Your task to perform on an android device: Clear all items from cart on costco.com. Search for "jbl flip 4" on costco.com, select the first entry, add it to the cart, then select checkout. Image 0: 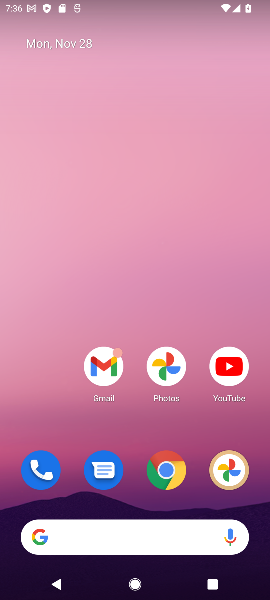
Step 0: click (162, 470)
Your task to perform on an android device: Clear all items from cart on costco.com. Search for "jbl flip 4" on costco.com, select the first entry, add it to the cart, then select checkout. Image 1: 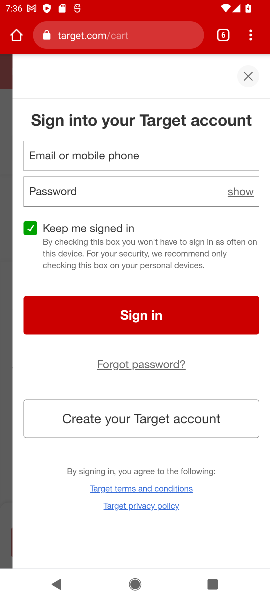
Step 1: click (73, 32)
Your task to perform on an android device: Clear all items from cart on costco.com. Search for "jbl flip 4" on costco.com, select the first entry, add it to the cart, then select checkout. Image 2: 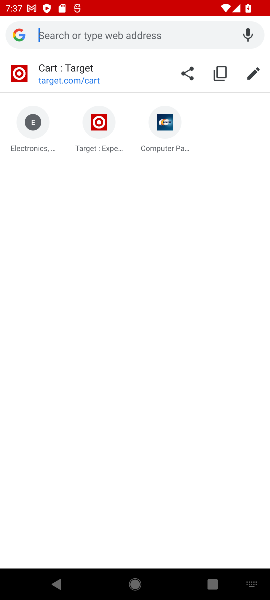
Step 2: type "costco.com,"
Your task to perform on an android device: Clear all items from cart on costco.com. Search for "jbl flip 4" on costco.com, select the first entry, add it to the cart, then select checkout. Image 3: 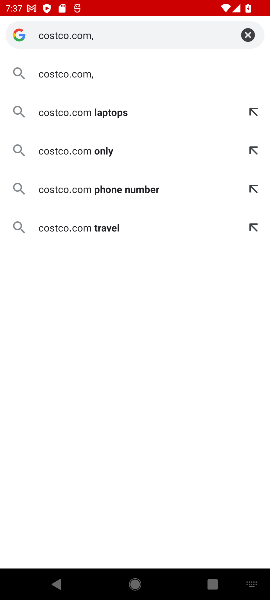
Step 3: click (44, 76)
Your task to perform on an android device: Clear all items from cart on costco.com. Search for "jbl flip 4" on costco.com, select the first entry, add it to the cart, then select checkout. Image 4: 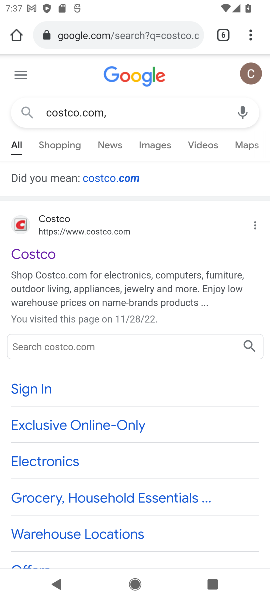
Step 4: click (41, 237)
Your task to perform on an android device: Clear all items from cart on costco.com. Search for "jbl flip 4" on costco.com, select the first entry, add it to the cart, then select checkout. Image 5: 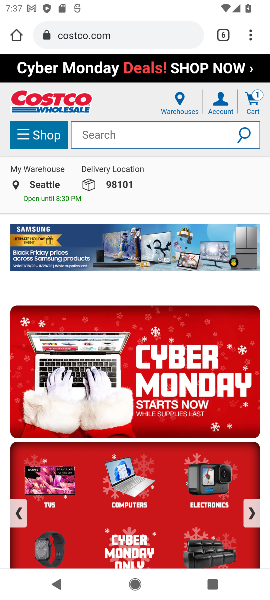
Step 5: click (139, 138)
Your task to perform on an android device: Clear all items from cart on costco.com. Search for "jbl flip 4" on costco.com, select the first entry, add it to the cart, then select checkout. Image 6: 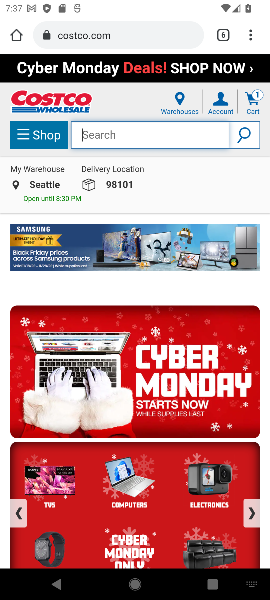
Step 6: type "jbl flip 4"
Your task to perform on an android device: Clear all items from cart on costco.com. Search for "jbl flip 4" on costco.com, select the first entry, add it to the cart, then select checkout. Image 7: 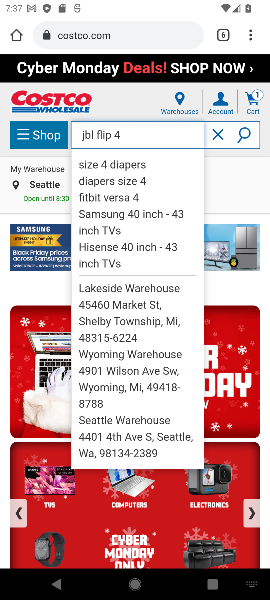
Step 7: click (243, 130)
Your task to perform on an android device: Clear all items from cart on costco.com. Search for "jbl flip 4" on costco.com, select the first entry, add it to the cart, then select checkout. Image 8: 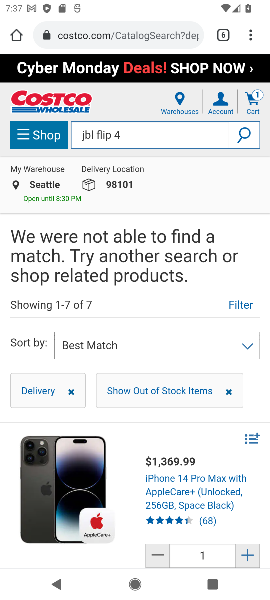
Step 8: click (196, 543)
Your task to perform on an android device: Clear all items from cart on costco.com. Search for "jbl flip 4" on costco.com, select the first entry, add it to the cart, then select checkout. Image 9: 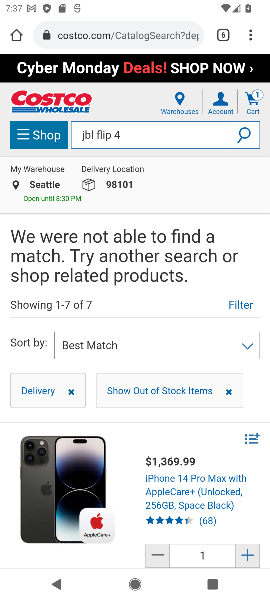
Step 9: click (196, 543)
Your task to perform on an android device: Clear all items from cart on costco.com. Search for "jbl flip 4" on costco.com, select the first entry, add it to the cart, then select checkout. Image 10: 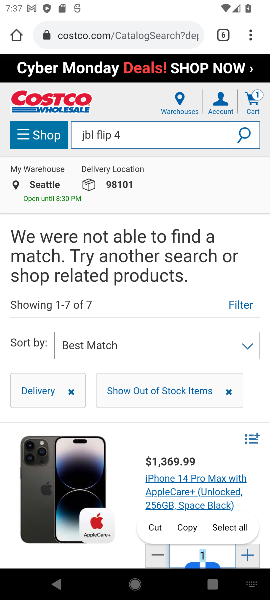
Step 10: click (257, 99)
Your task to perform on an android device: Clear all items from cart on costco.com. Search for "jbl flip 4" on costco.com, select the first entry, add it to the cart, then select checkout. Image 11: 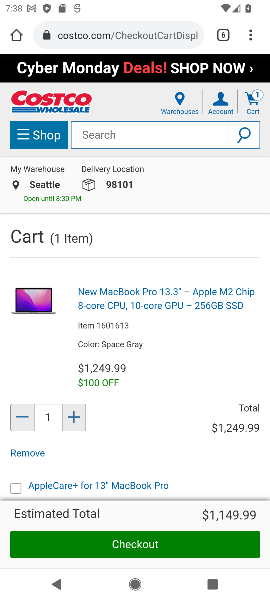
Step 11: click (132, 545)
Your task to perform on an android device: Clear all items from cart on costco.com. Search for "jbl flip 4" on costco.com, select the first entry, add it to the cart, then select checkout. Image 12: 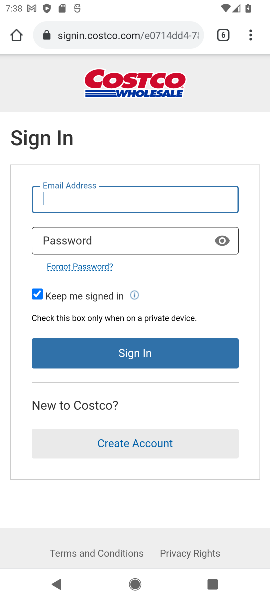
Step 12: task complete